Your task to perform on an android device: visit the assistant section in the google photos Image 0: 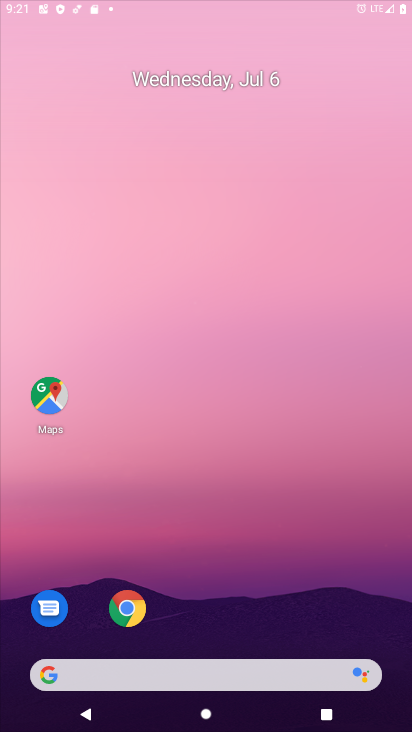
Step 0: drag from (351, 617) to (230, 57)
Your task to perform on an android device: visit the assistant section in the google photos Image 1: 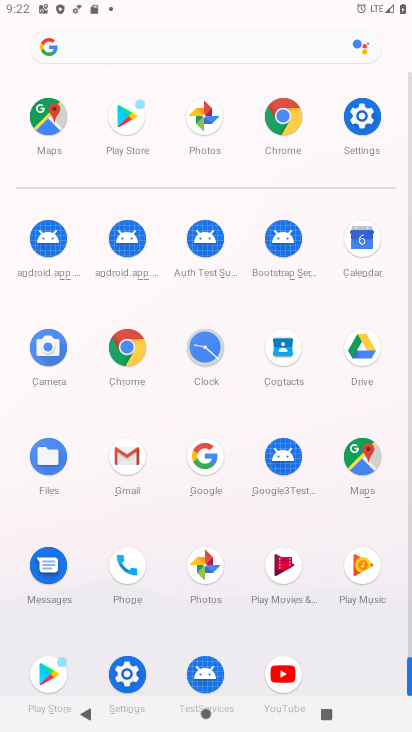
Step 1: click (206, 564)
Your task to perform on an android device: visit the assistant section in the google photos Image 2: 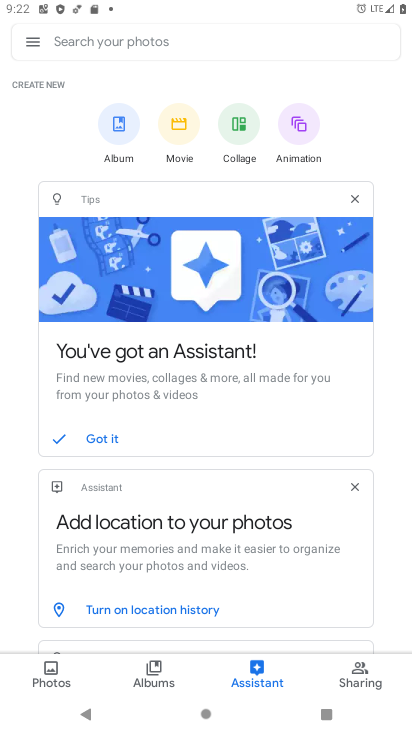
Step 2: task complete